Your task to perform on an android device: open app "Chime – Mobile Banking" (install if not already installed) and go to login screen Image 0: 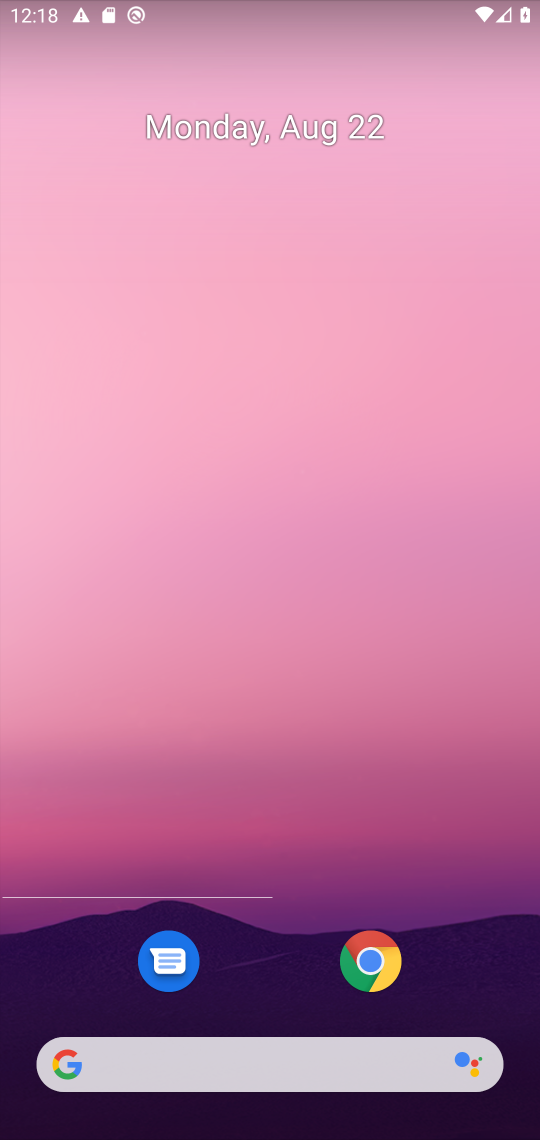
Step 0: press home button
Your task to perform on an android device: open app "Chime – Mobile Banking" (install if not already installed) and go to login screen Image 1: 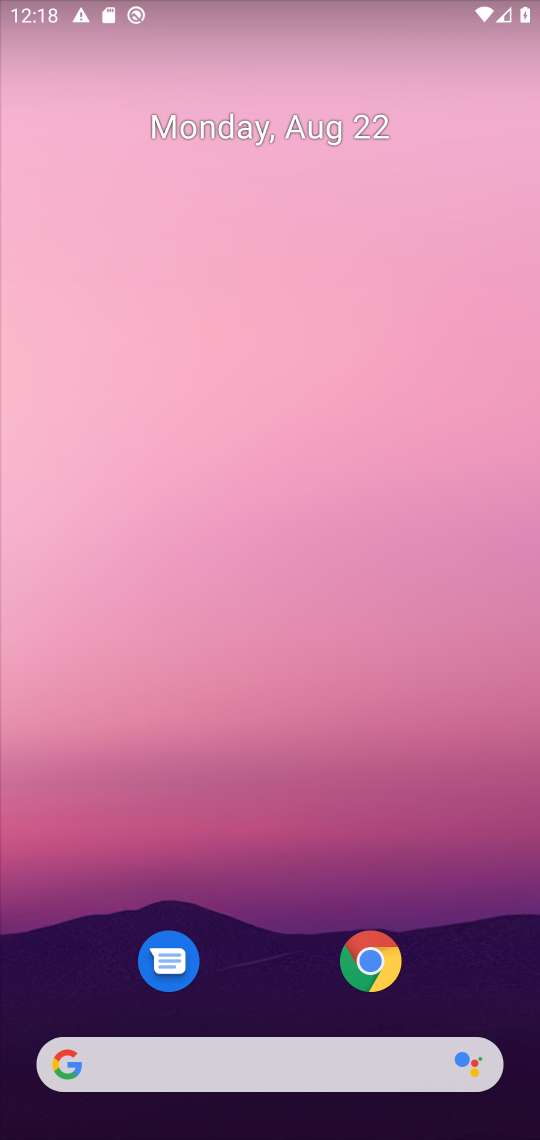
Step 1: drag from (469, 978) to (487, 110)
Your task to perform on an android device: open app "Chime – Mobile Banking" (install if not already installed) and go to login screen Image 2: 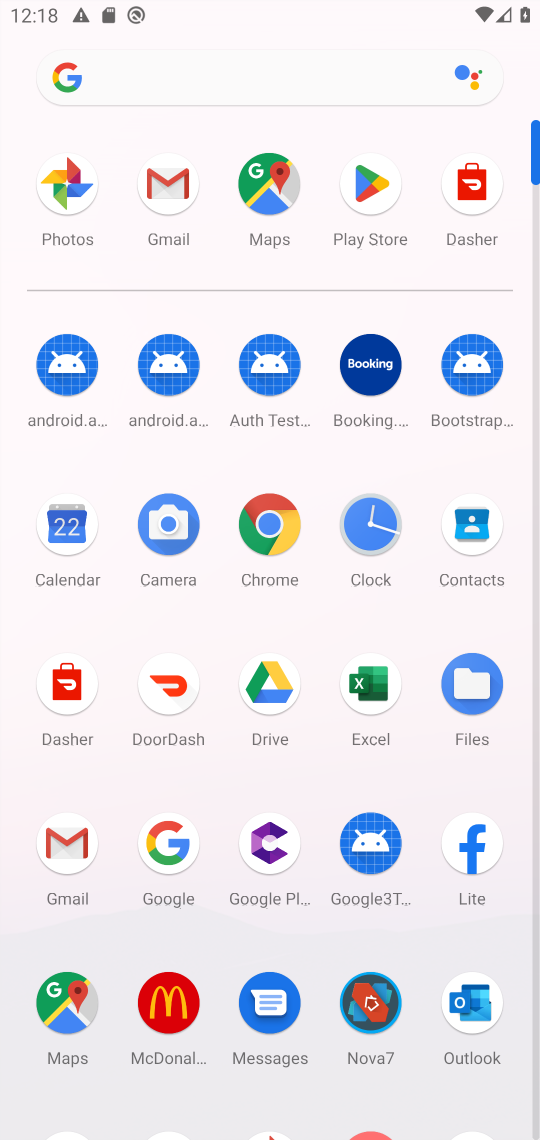
Step 2: click (372, 176)
Your task to perform on an android device: open app "Chime – Mobile Banking" (install if not already installed) and go to login screen Image 3: 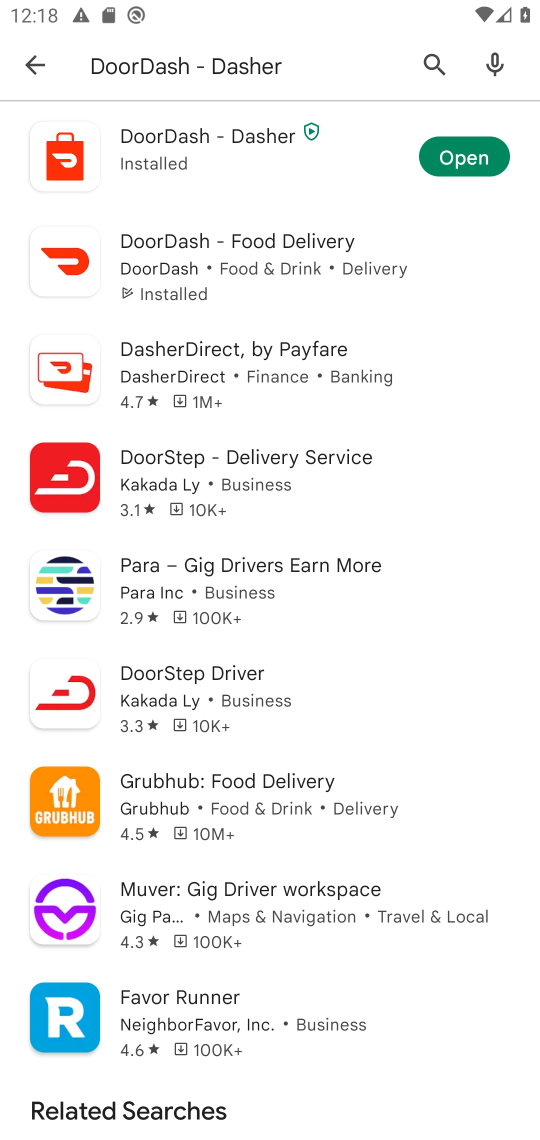
Step 3: press back button
Your task to perform on an android device: open app "Chime – Mobile Banking" (install if not already installed) and go to login screen Image 4: 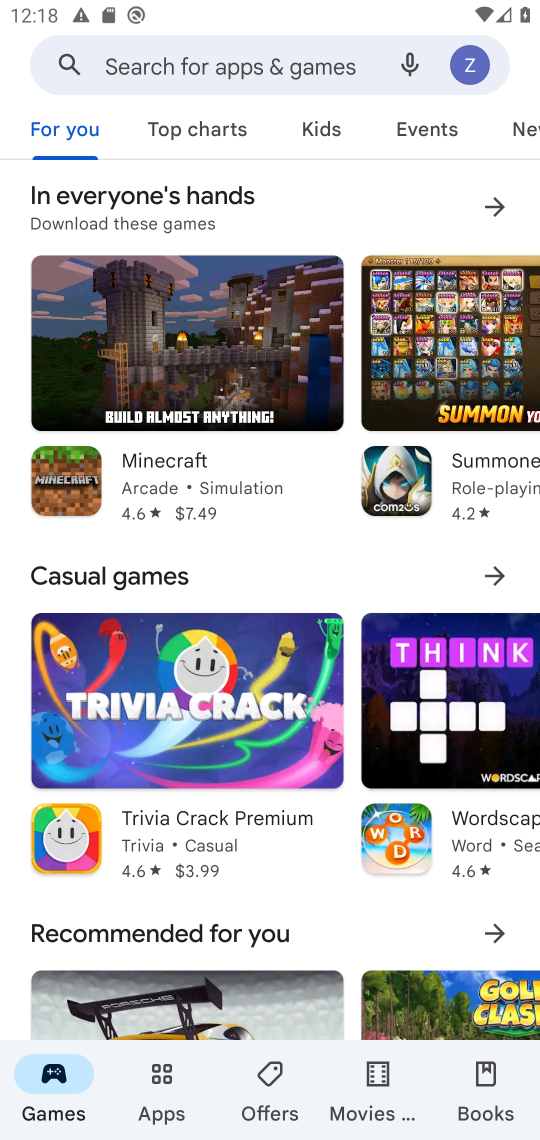
Step 4: click (266, 64)
Your task to perform on an android device: open app "Chime – Mobile Banking" (install if not already installed) and go to login screen Image 5: 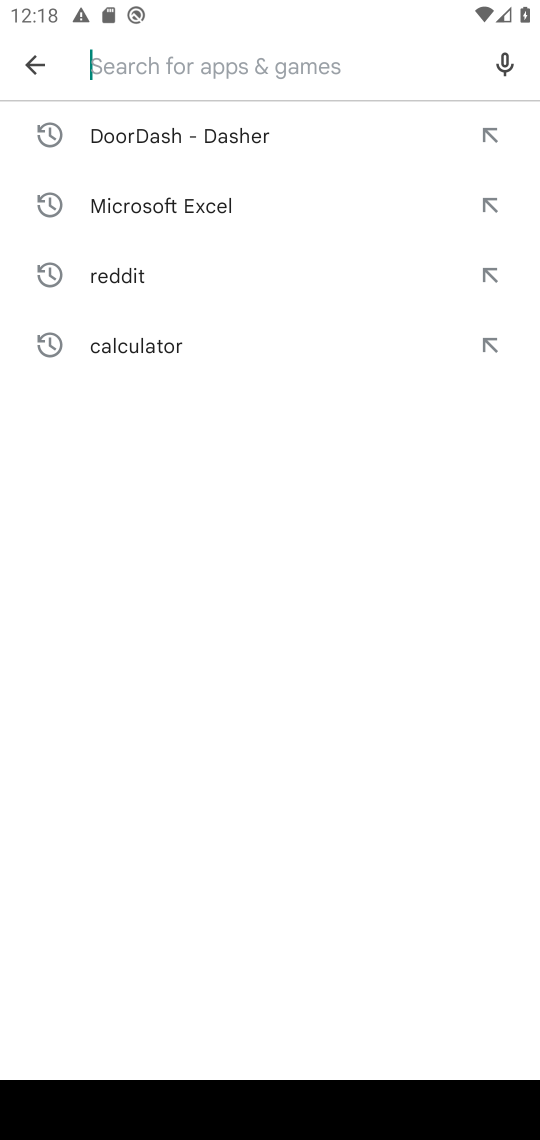
Step 5: type "Chime – Mobile Banking"
Your task to perform on an android device: open app "Chime – Mobile Banking" (install if not already installed) and go to login screen Image 6: 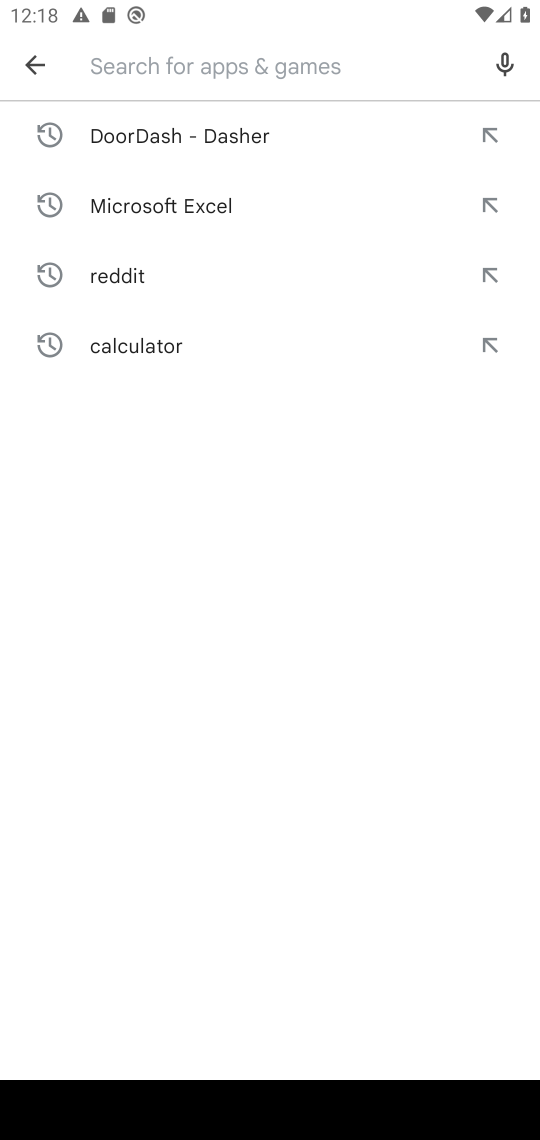
Step 6: press enter
Your task to perform on an android device: open app "Chime – Mobile Banking" (install if not already installed) and go to login screen Image 7: 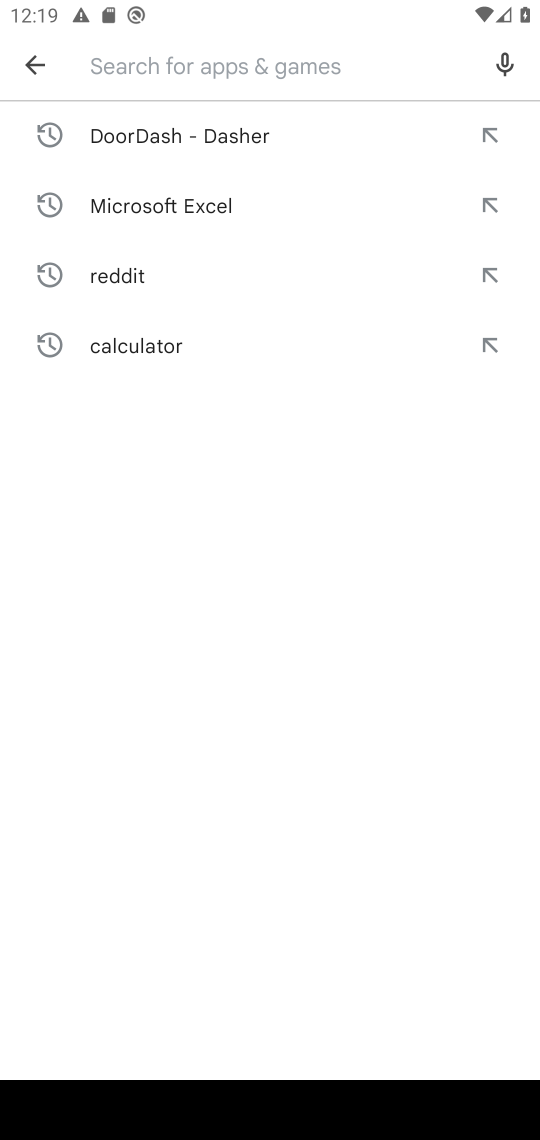
Step 7: type "Chime – Mobile Banking"
Your task to perform on an android device: open app "Chime – Mobile Banking" (install if not already installed) and go to login screen Image 8: 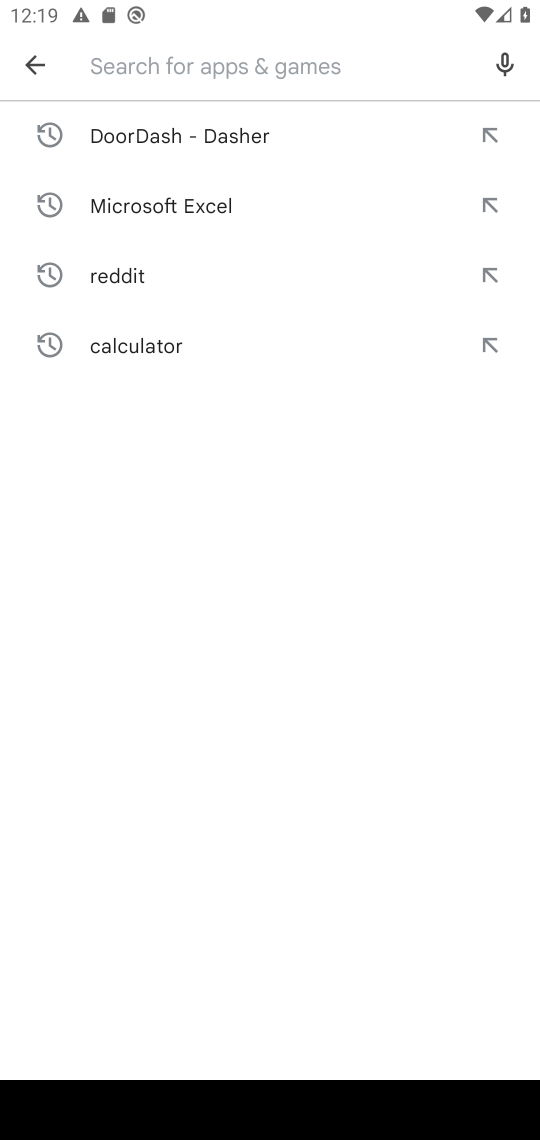
Step 8: task complete